Your task to perform on an android device: Open the stopwatch Image 0: 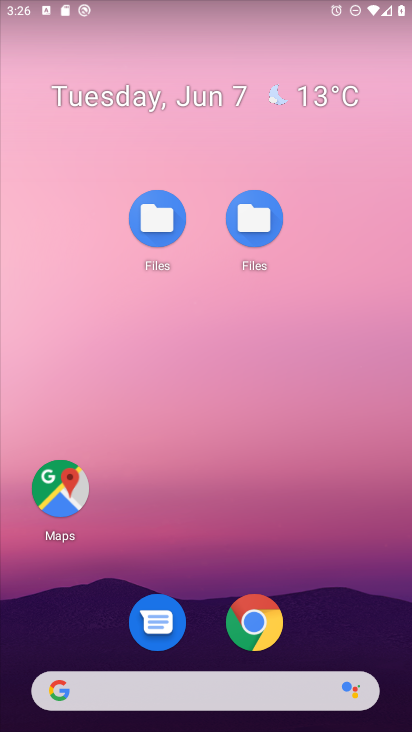
Step 0: drag from (316, 643) to (264, 78)
Your task to perform on an android device: Open the stopwatch Image 1: 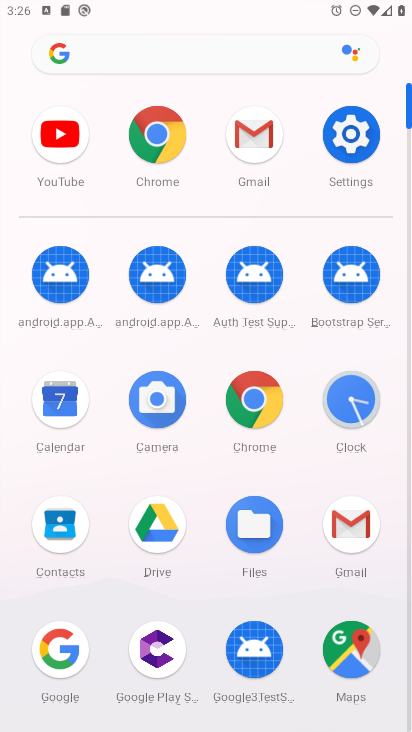
Step 1: click (345, 401)
Your task to perform on an android device: Open the stopwatch Image 2: 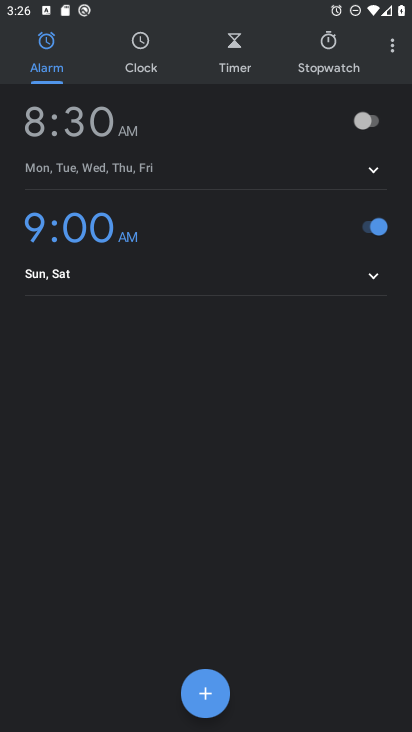
Step 2: click (332, 39)
Your task to perform on an android device: Open the stopwatch Image 3: 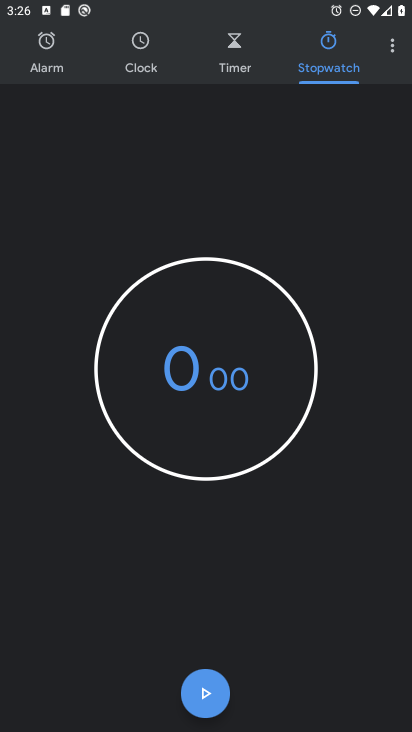
Step 3: click (205, 688)
Your task to perform on an android device: Open the stopwatch Image 4: 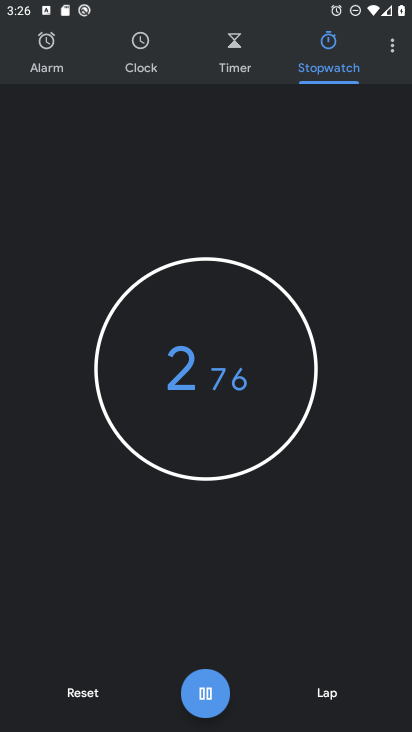
Step 4: task complete